Your task to perform on an android device: What is the recent news? Image 0: 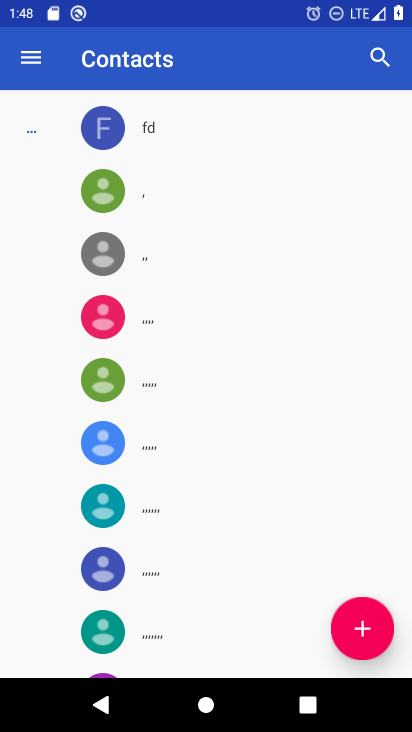
Step 0: press home button
Your task to perform on an android device: What is the recent news? Image 1: 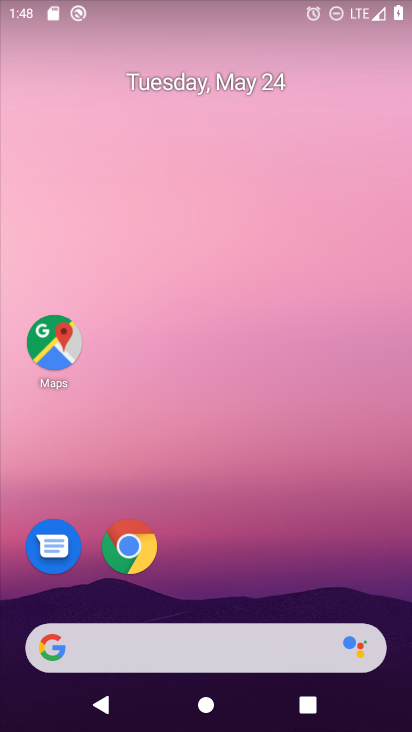
Step 1: drag from (297, 659) to (329, 46)
Your task to perform on an android device: What is the recent news? Image 2: 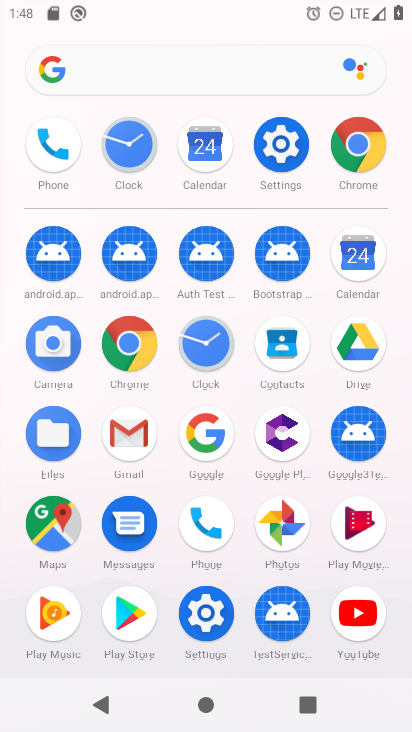
Step 2: click (147, 340)
Your task to perform on an android device: What is the recent news? Image 3: 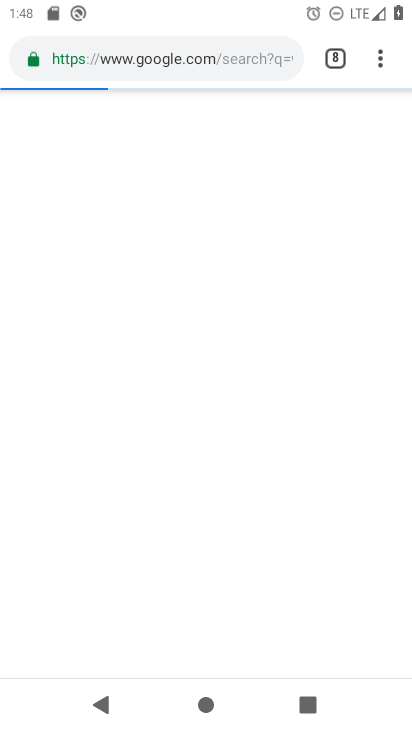
Step 3: click (236, 55)
Your task to perform on an android device: What is the recent news? Image 4: 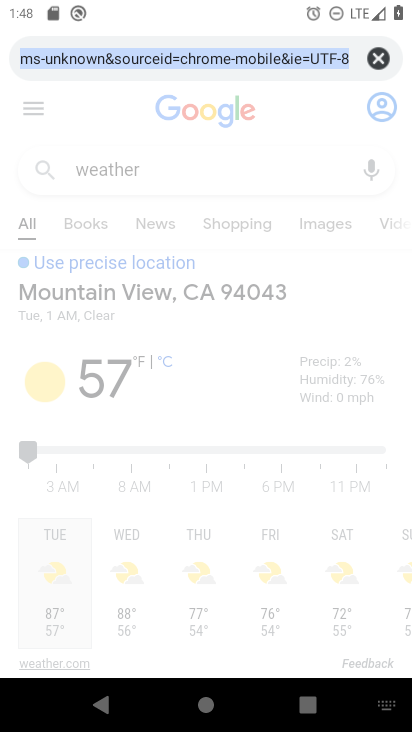
Step 4: type "recent news"
Your task to perform on an android device: What is the recent news? Image 5: 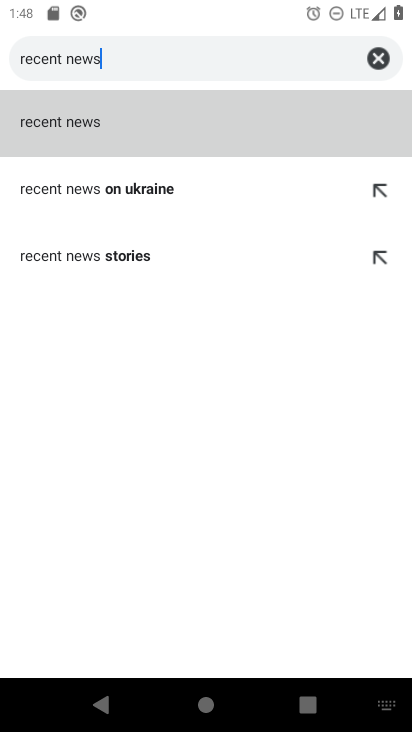
Step 5: click (172, 125)
Your task to perform on an android device: What is the recent news? Image 6: 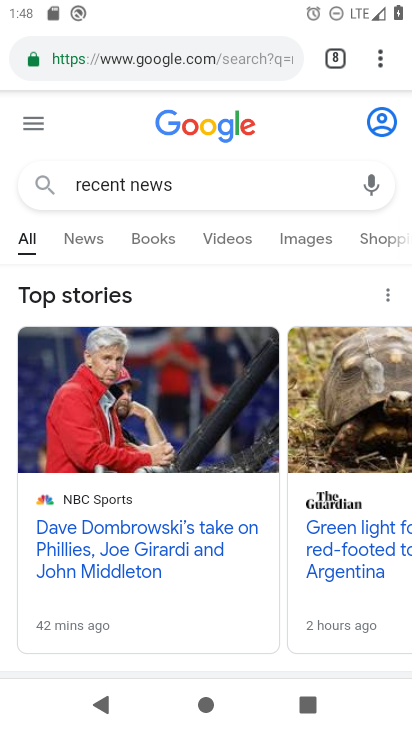
Step 6: task complete